Your task to perform on an android device: Open Chrome and go to settings Image 0: 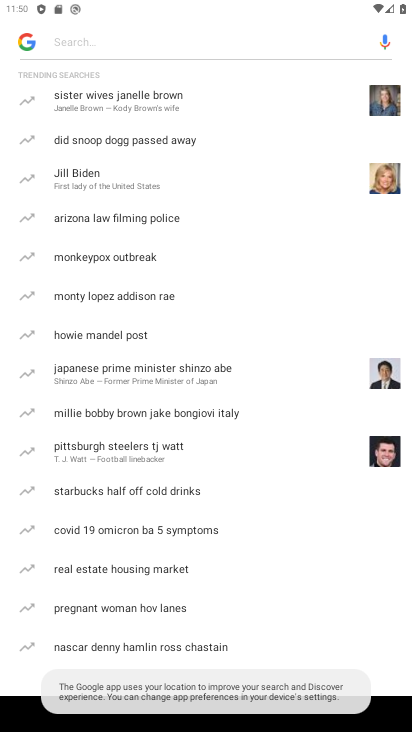
Step 0: press home button
Your task to perform on an android device: Open Chrome and go to settings Image 1: 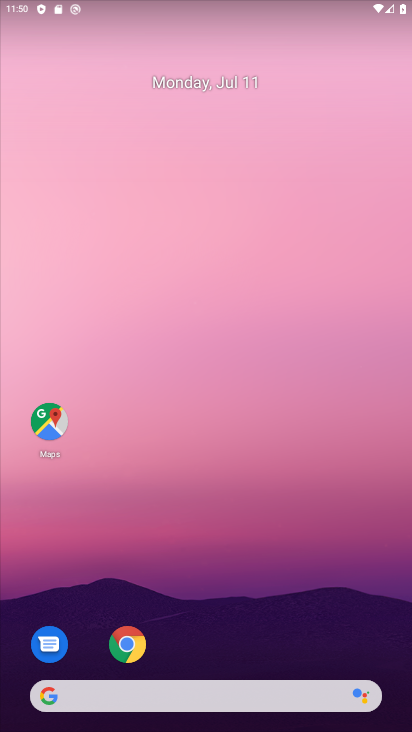
Step 1: click (124, 636)
Your task to perform on an android device: Open Chrome and go to settings Image 2: 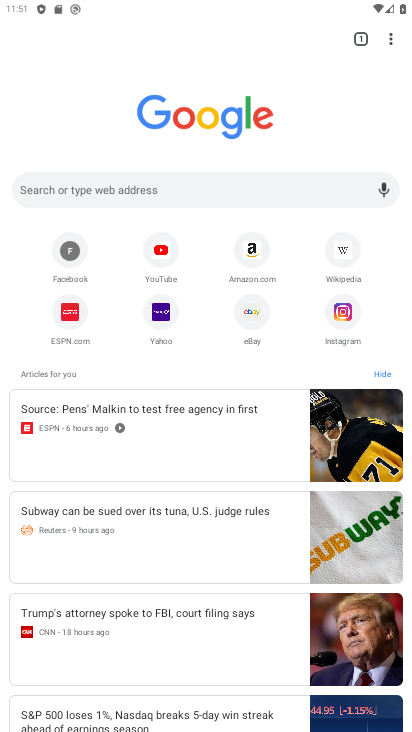
Step 2: click (400, 37)
Your task to perform on an android device: Open Chrome and go to settings Image 3: 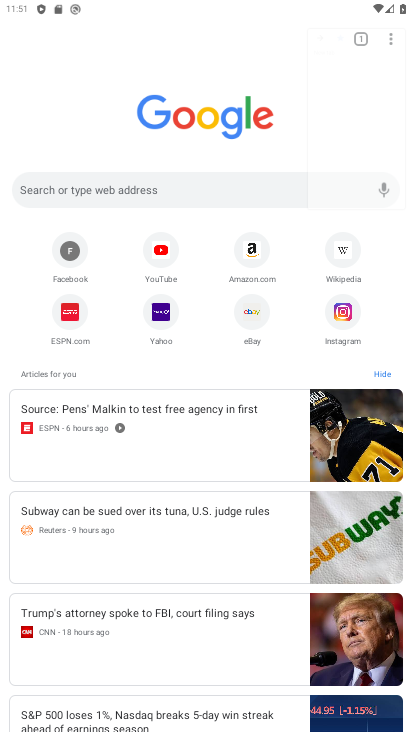
Step 3: click (392, 39)
Your task to perform on an android device: Open Chrome and go to settings Image 4: 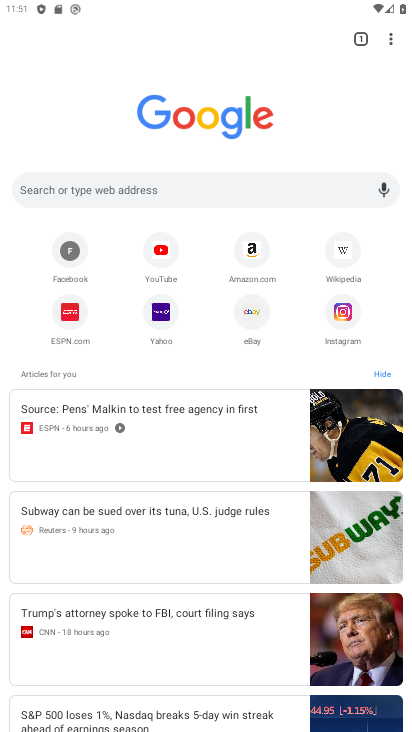
Step 4: click (389, 34)
Your task to perform on an android device: Open Chrome and go to settings Image 5: 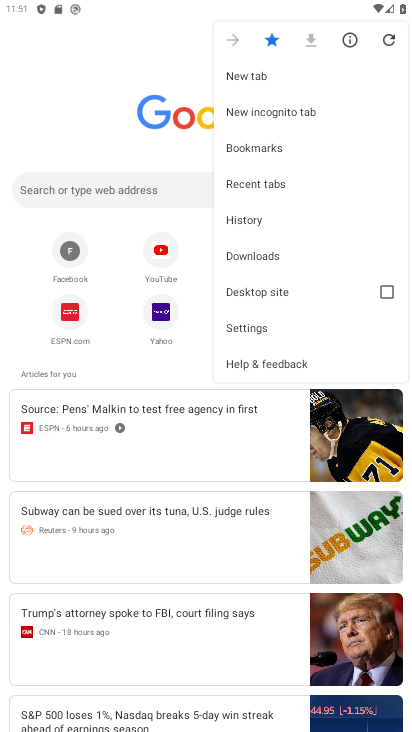
Step 5: click (233, 328)
Your task to perform on an android device: Open Chrome and go to settings Image 6: 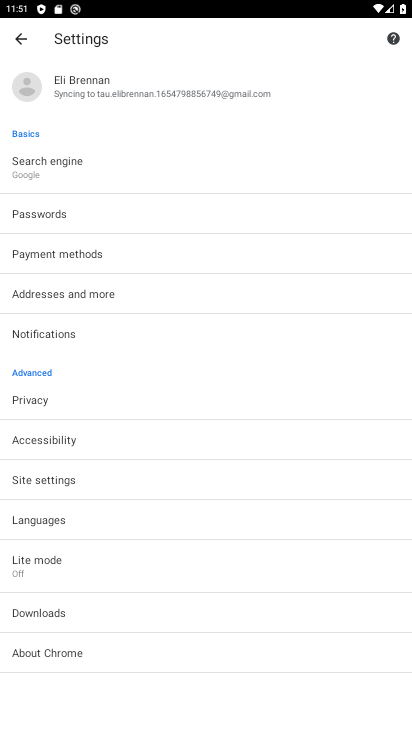
Step 6: task complete